Your task to perform on an android device: Show me popular videos on Youtube Image 0: 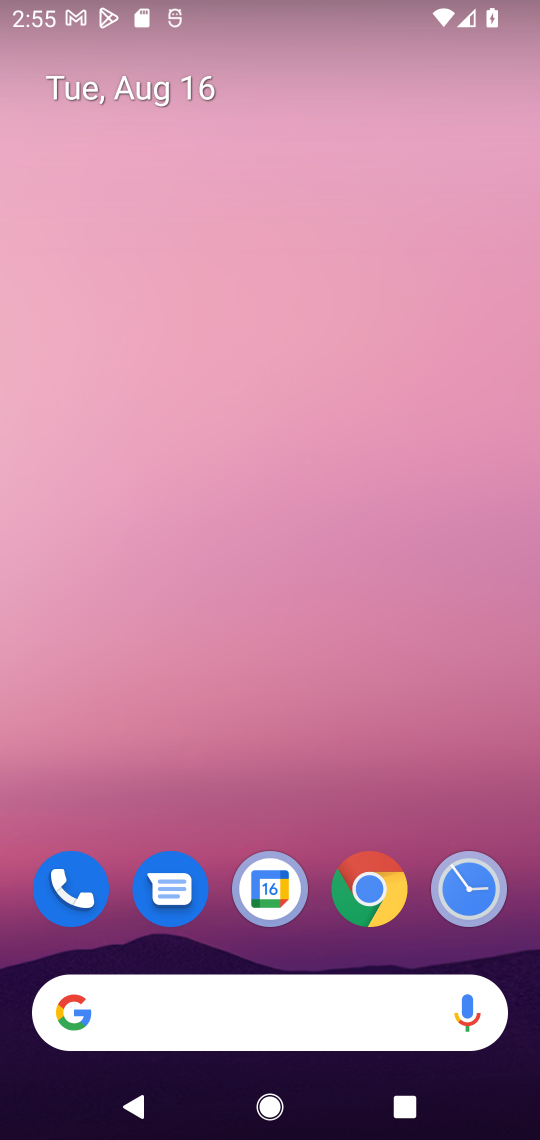
Step 0: drag from (309, 741) to (335, 358)
Your task to perform on an android device: Show me popular videos on Youtube Image 1: 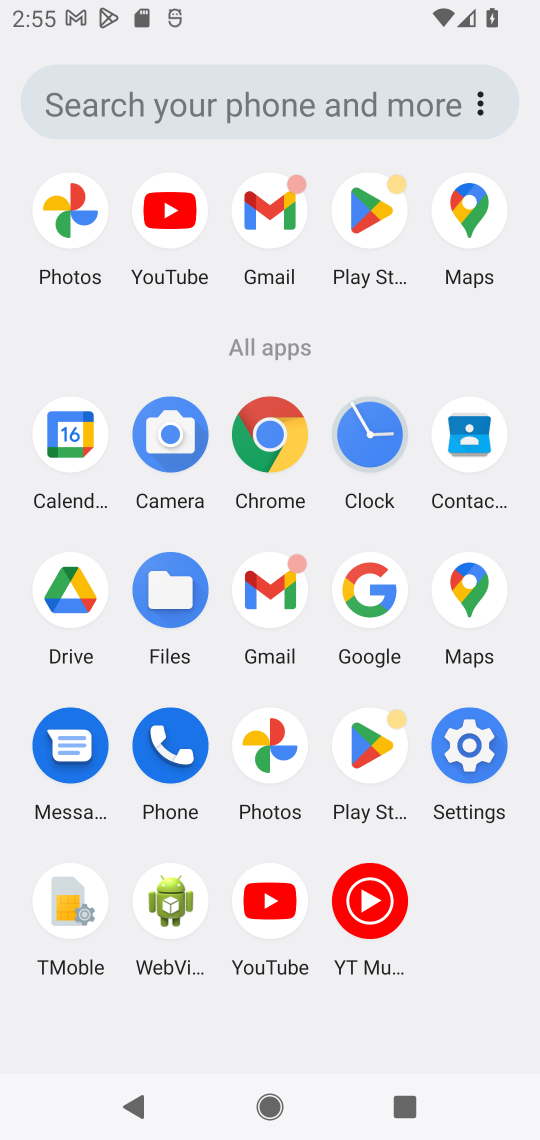
Step 1: click (176, 225)
Your task to perform on an android device: Show me popular videos on Youtube Image 2: 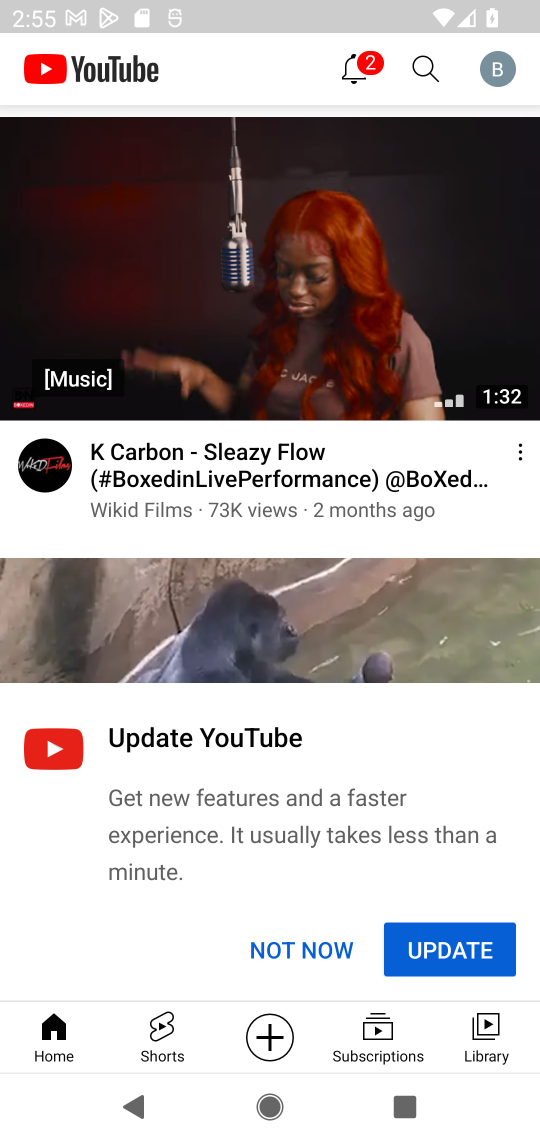
Step 2: task complete